Your task to perform on an android device: What's the weather today? Image 0: 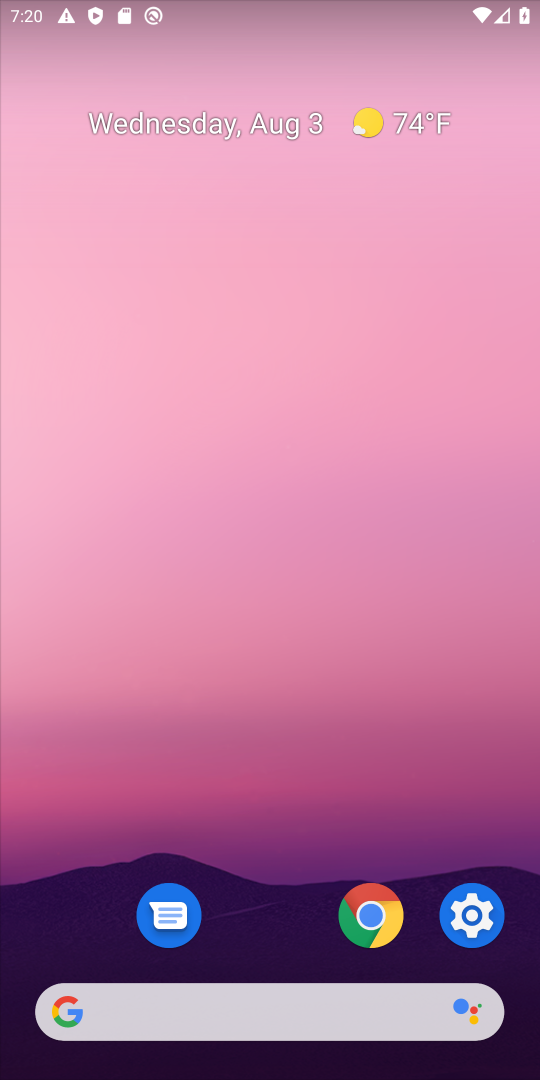
Step 0: click (240, 1016)
Your task to perform on an android device: What's the weather today? Image 1: 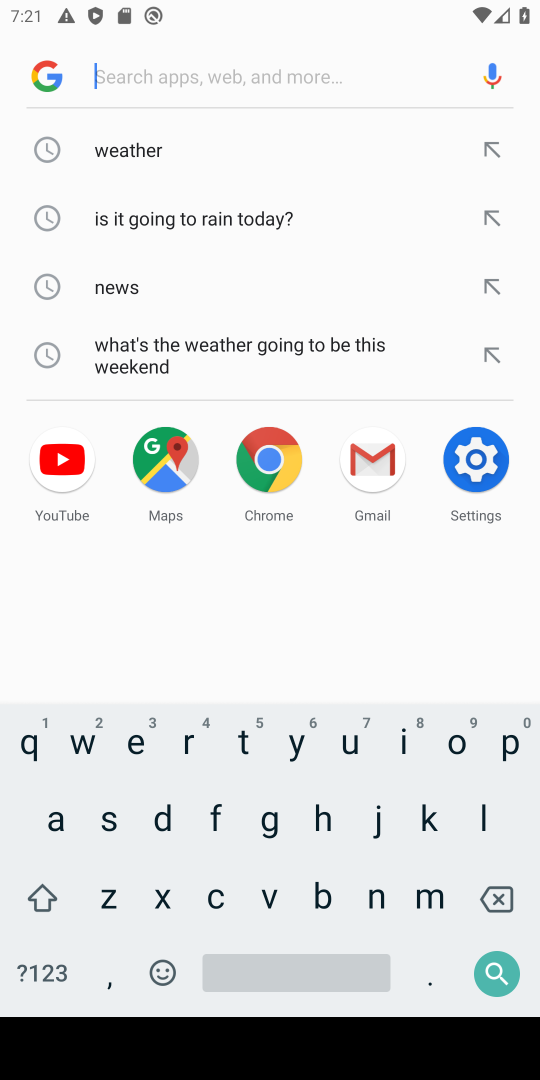
Step 1: click (70, 740)
Your task to perform on an android device: What's the weather today? Image 2: 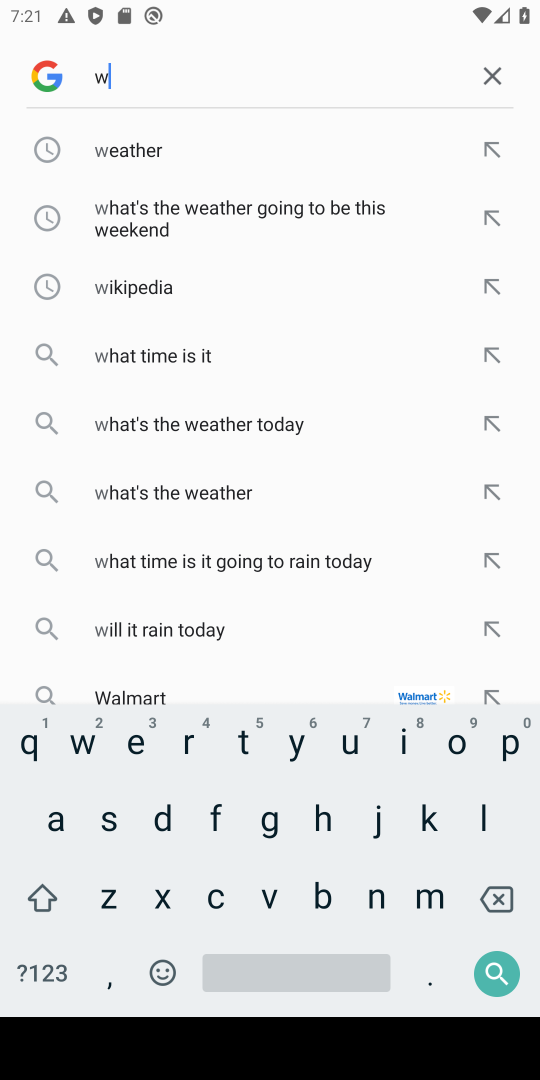
Step 2: click (285, 423)
Your task to perform on an android device: What's the weather today? Image 3: 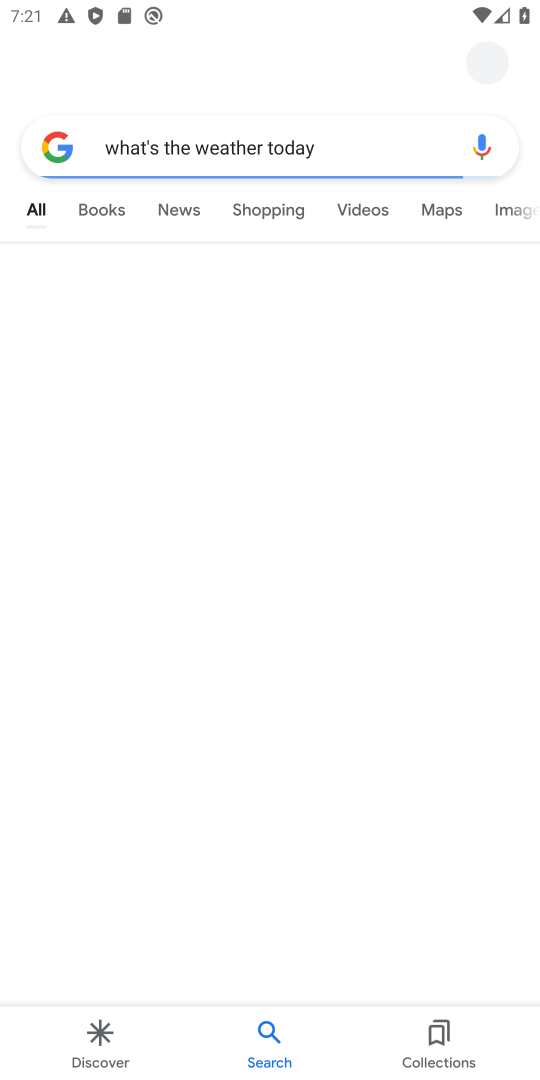
Step 3: click (278, 425)
Your task to perform on an android device: What's the weather today? Image 4: 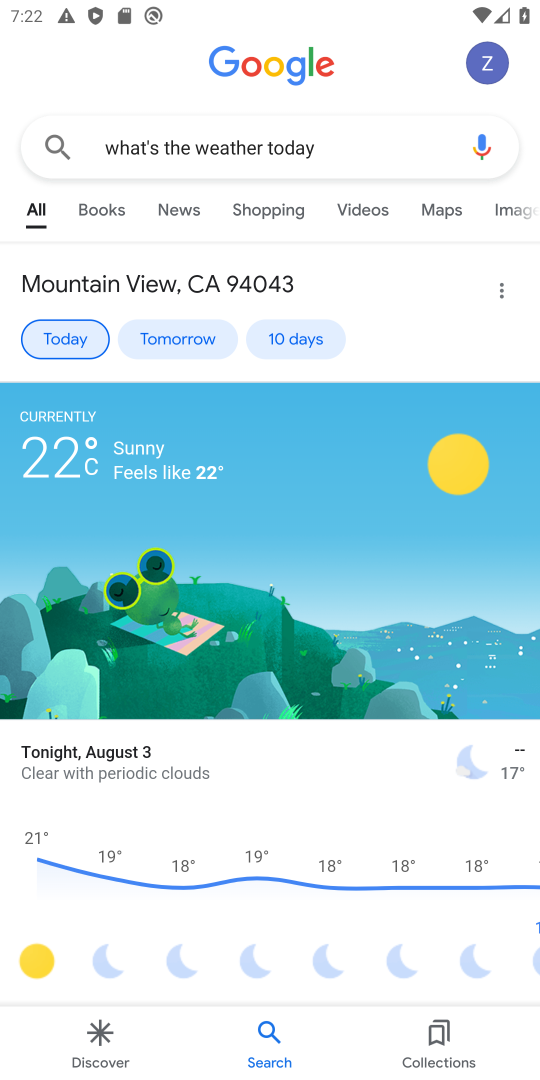
Step 4: task complete